Your task to perform on an android device: turn off priority inbox in the gmail app Image 0: 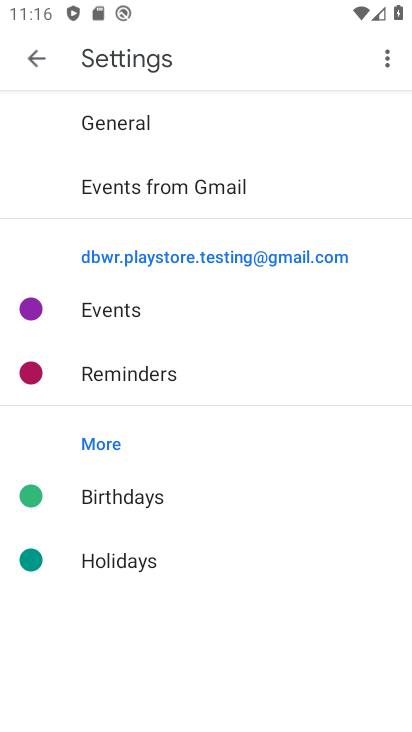
Step 0: press home button
Your task to perform on an android device: turn off priority inbox in the gmail app Image 1: 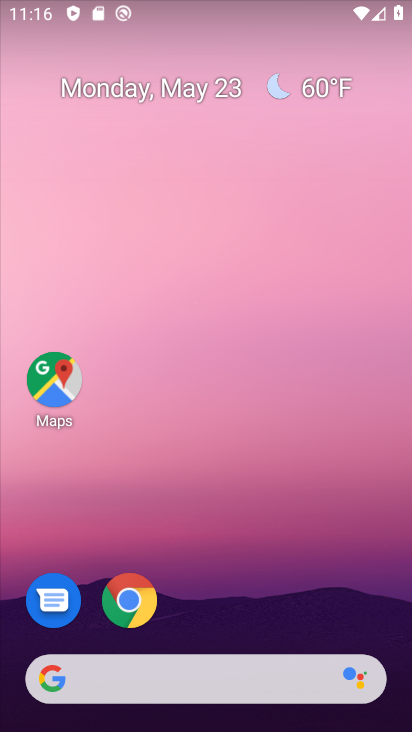
Step 1: drag from (234, 696) to (165, 76)
Your task to perform on an android device: turn off priority inbox in the gmail app Image 2: 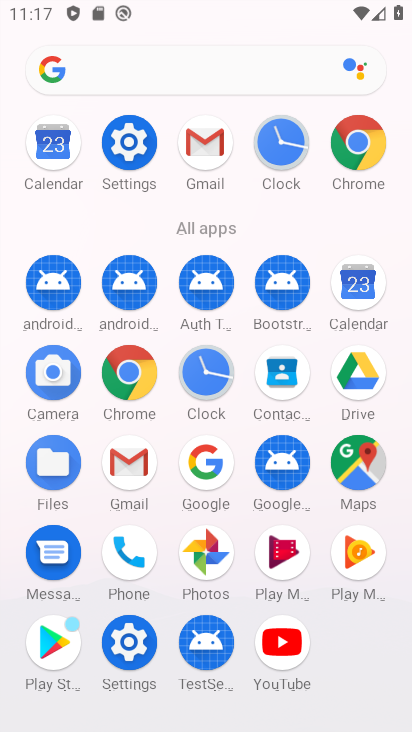
Step 2: click (192, 143)
Your task to perform on an android device: turn off priority inbox in the gmail app Image 3: 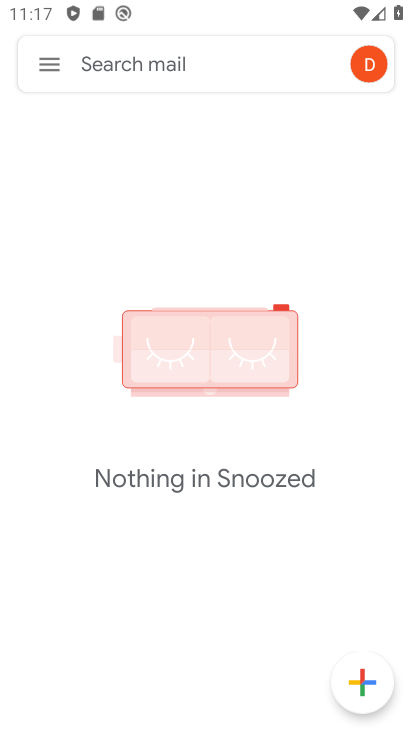
Step 3: click (49, 64)
Your task to perform on an android device: turn off priority inbox in the gmail app Image 4: 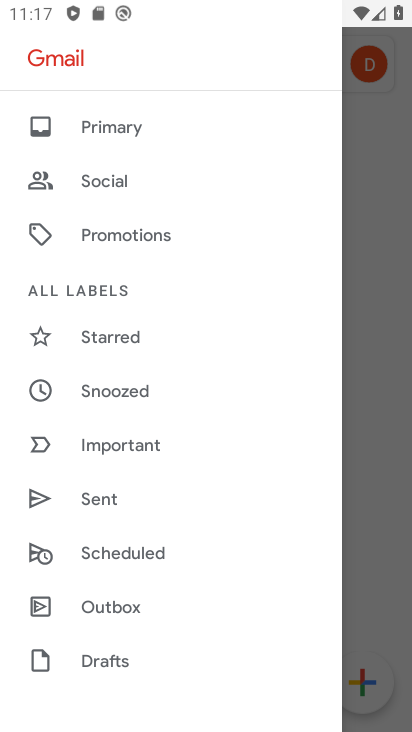
Step 4: drag from (135, 630) to (125, 399)
Your task to perform on an android device: turn off priority inbox in the gmail app Image 5: 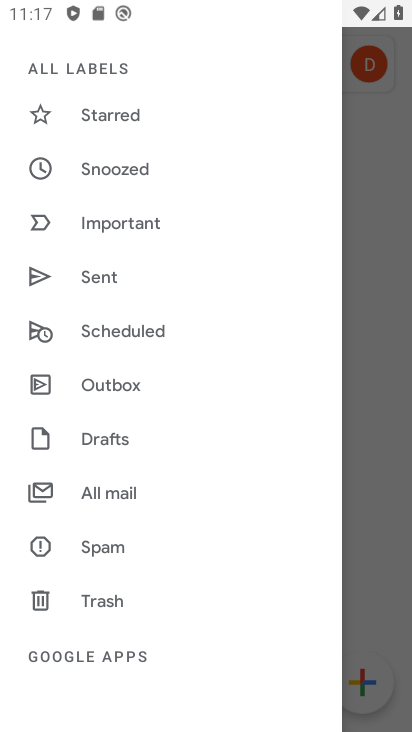
Step 5: drag from (120, 593) to (126, 377)
Your task to perform on an android device: turn off priority inbox in the gmail app Image 6: 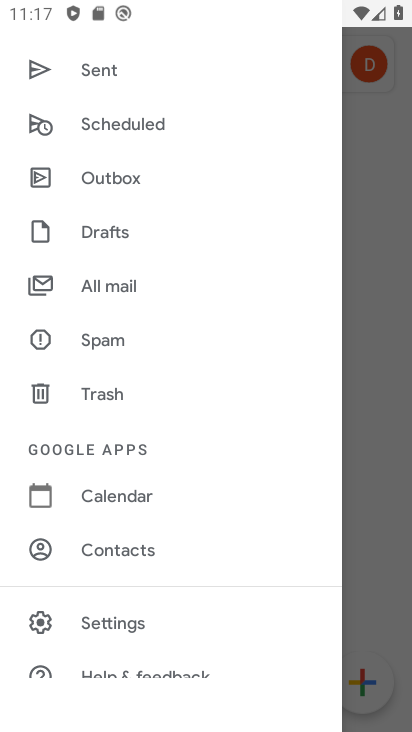
Step 6: click (127, 630)
Your task to perform on an android device: turn off priority inbox in the gmail app Image 7: 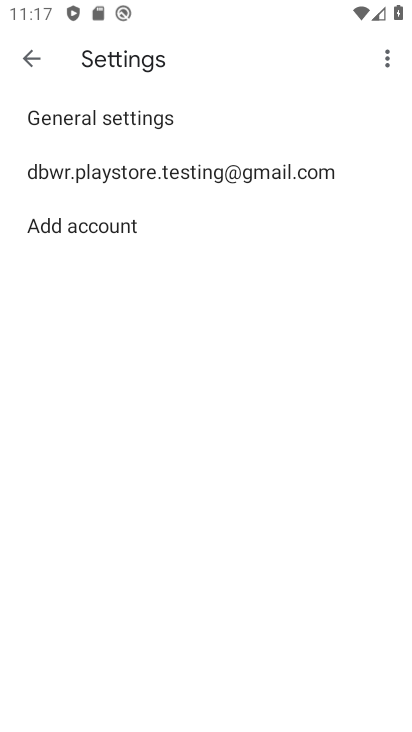
Step 7: click (143, 184)
Your task to perform on an android device: turn off priority inbox in the gmail app Image 8: 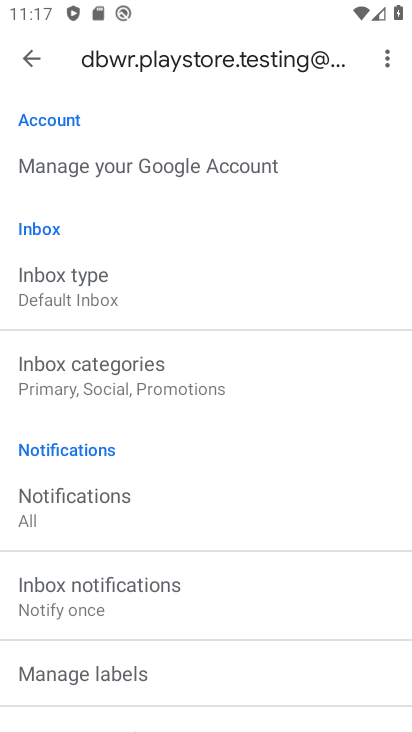
Step 8: click (120, 285)
Your task to perform on an android device: turn off priority inbox in the gmail app Image 9: 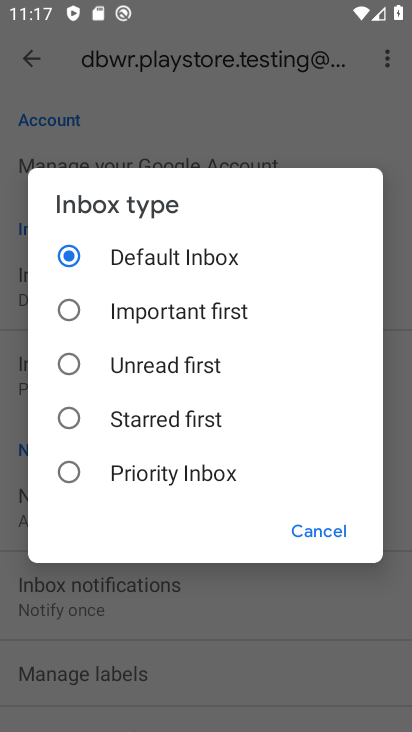
Step 9: task complete